Your task to perform on an android device: uninstall "The Home Depot" Image 0: 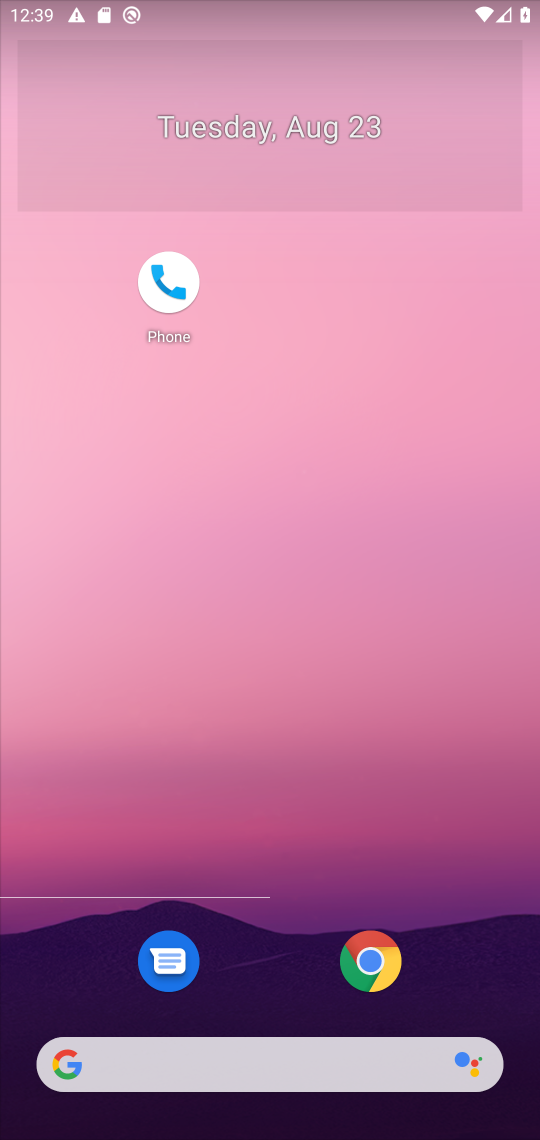
Step 0: drag from (288, 892) to (200, 31)
Your task to perform on an android device: uninstall "The Home Depot" Image 1: 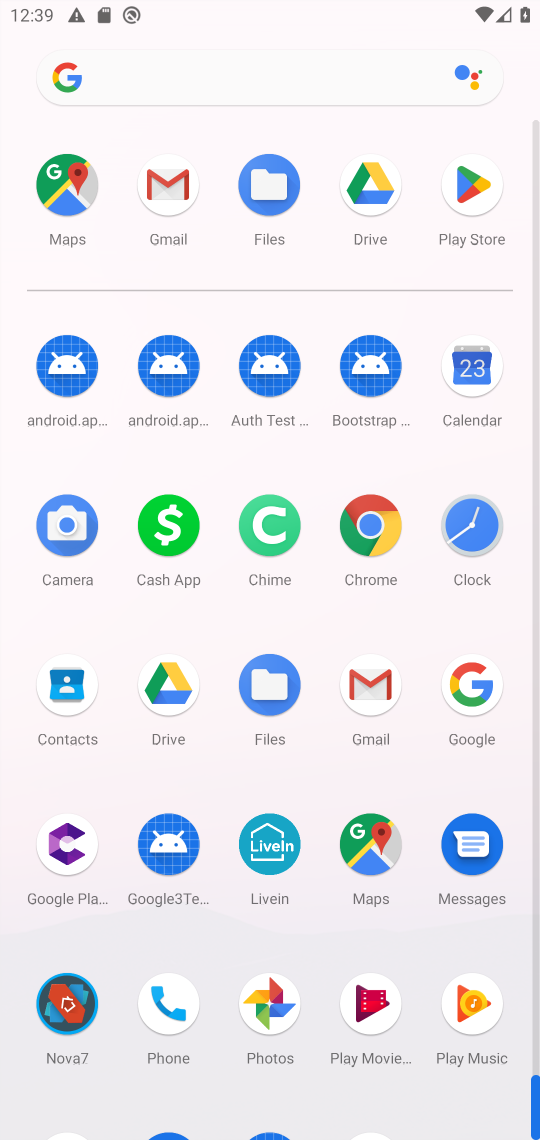
Step 1: click (448, 220)
Your task to perform on an android device: uninstall "The Home Depot" Image 2: 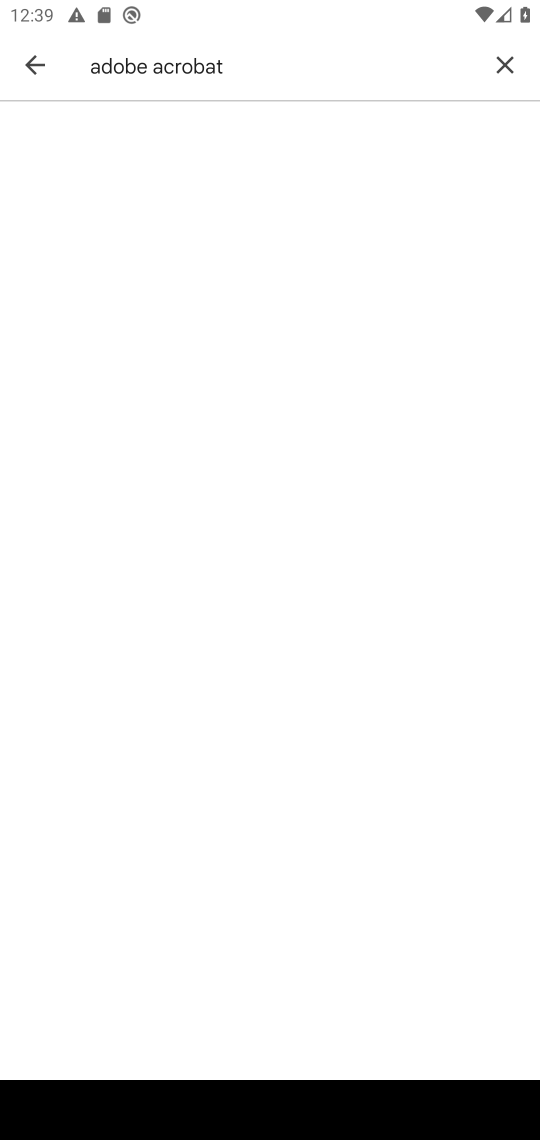
Step 2: click (500, 76)
Your task to perform on an android device: uninstall "The Home Depot" Image 3: 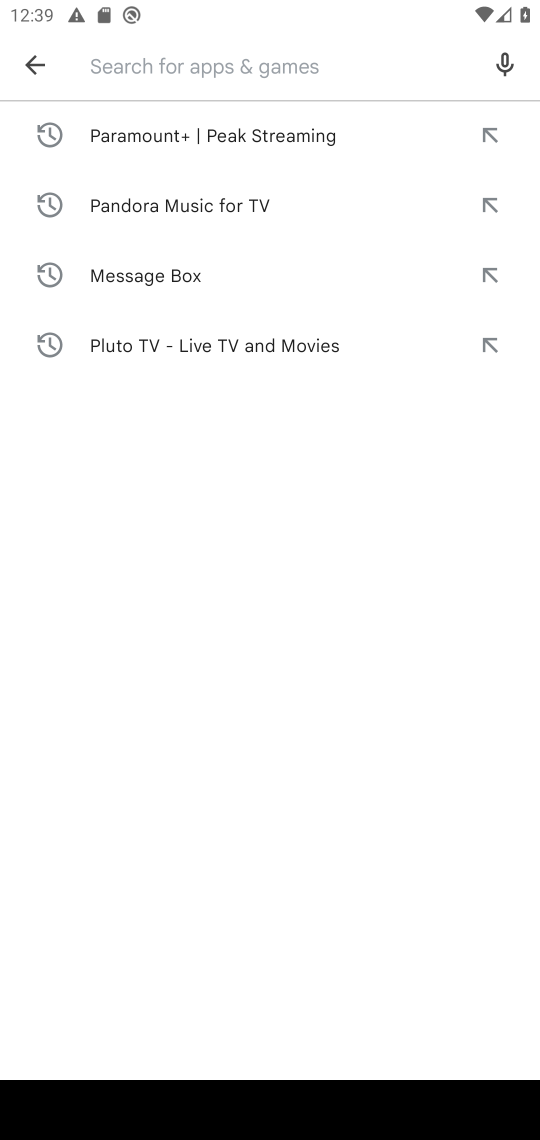
Step 3: type "the home depot"
Your task to perform on an android device: uninstall "The Home Depot" Image 4: 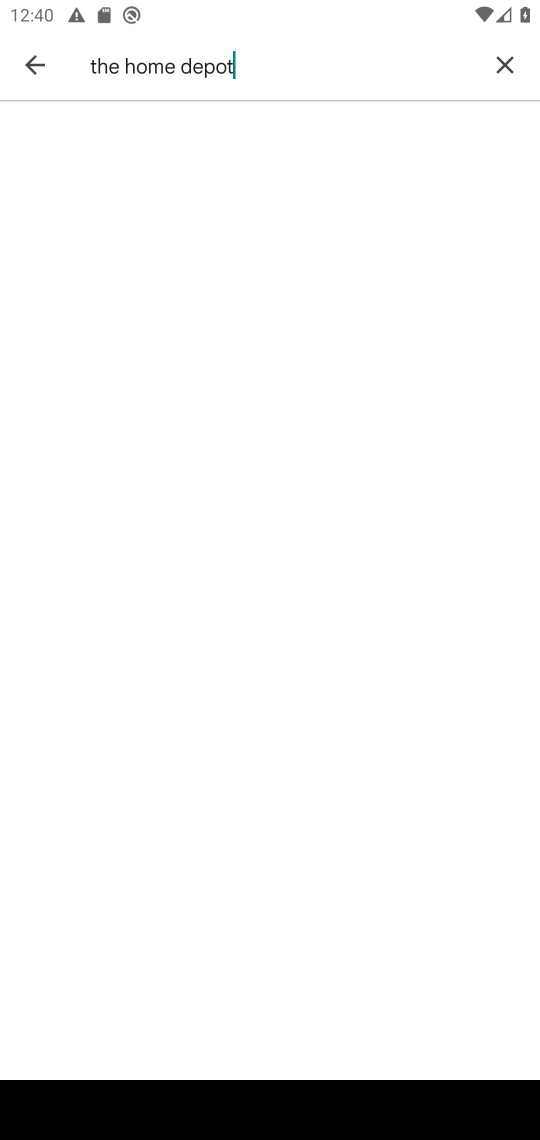
Step 4: task complete